Your task to perform on an android device: uninstall "Walmart Shopping & Grocery" Image 0: 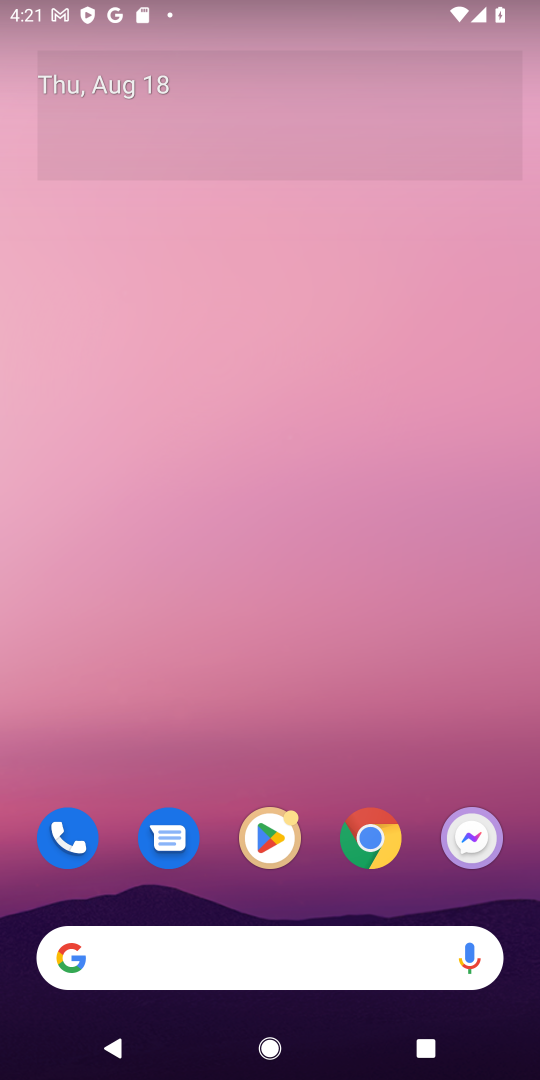
Step 0: drag from (215, 961) to (240, 69)
Your task to perform on an android device: uninstall "Walmart Shopping & Grocery" Image 1: 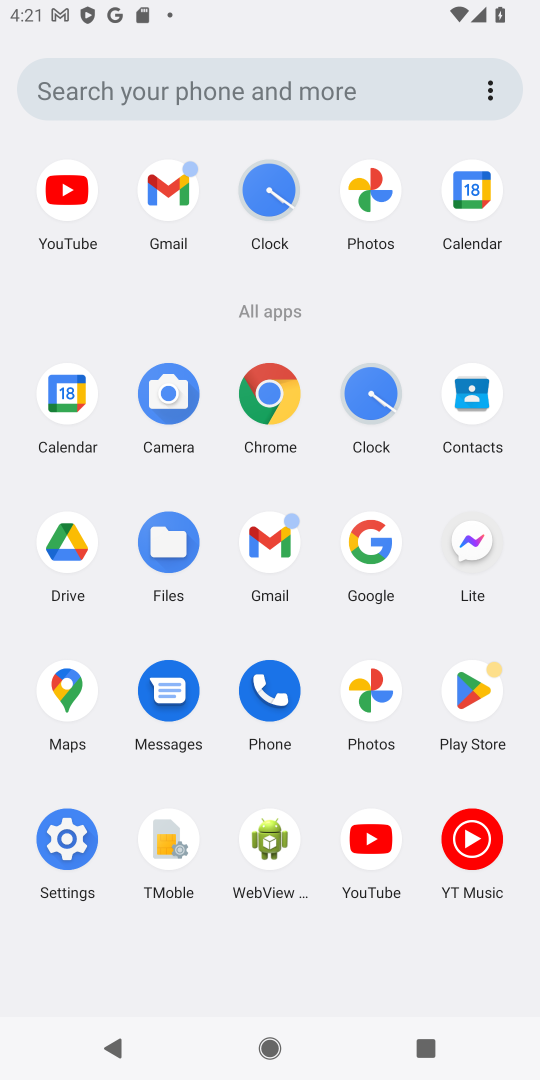
Step 1: click (483, 695)
Your task to perform on an android device: uninstall "Walmart Shopping & Grocery" Image 2: 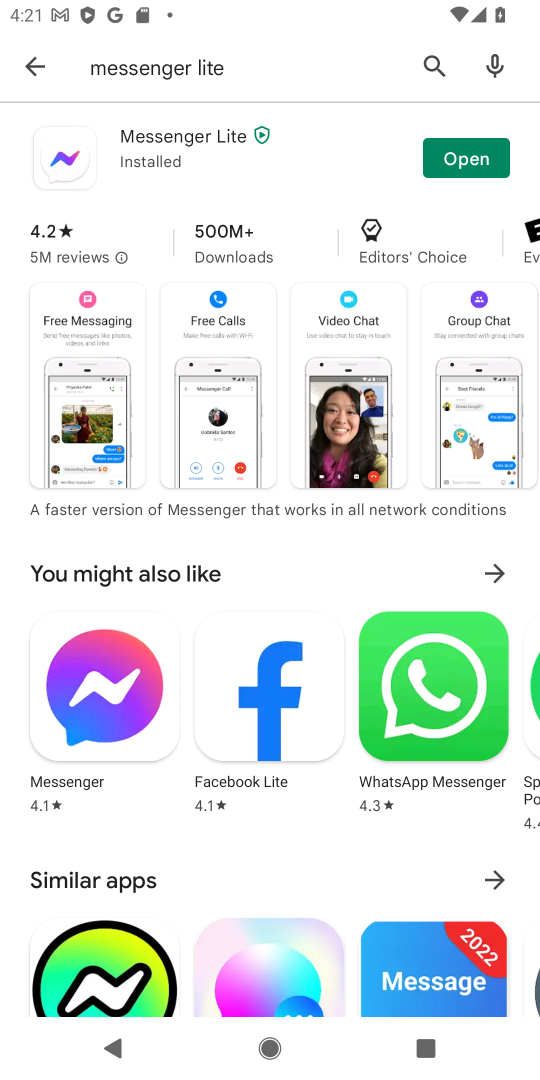
Step 2: press back button
Your task to perform on an android device: uninstall "Walmart Shopping & Grocery" Image 3: 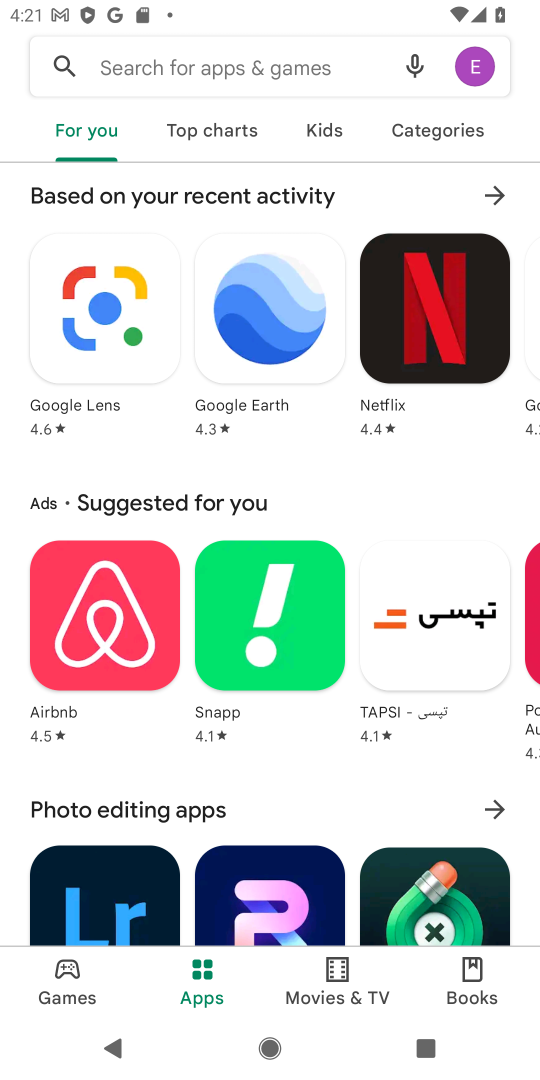
Step 3: click (329, 68)
Your task to perform on an android device: uninstall "Walmart Shopping & Grocery" Image 4: 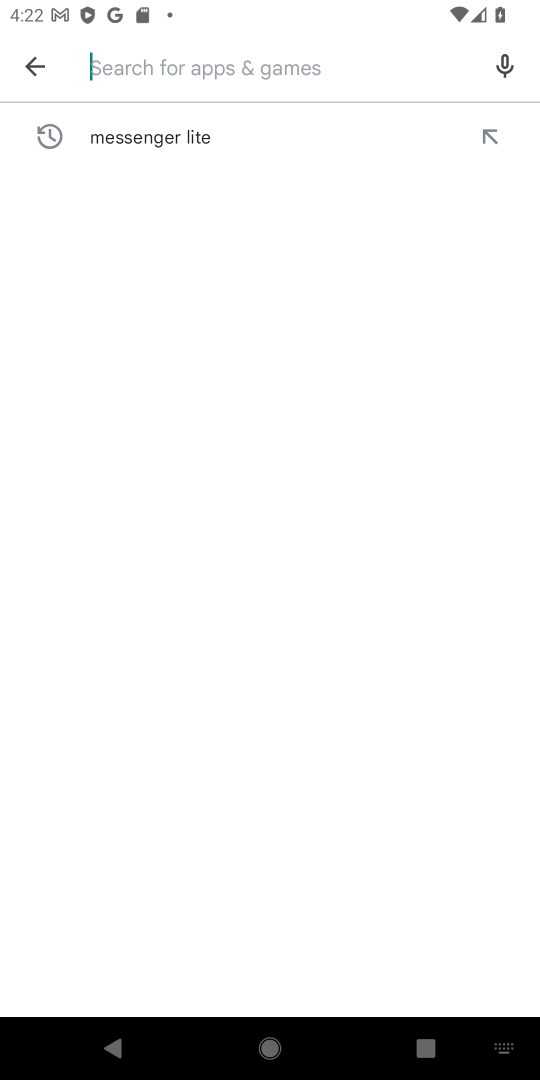
Step 4: click (205, 62)
Your task to perform on an android device: uninstall "Walmart Shopping & Grocery" Image 5: 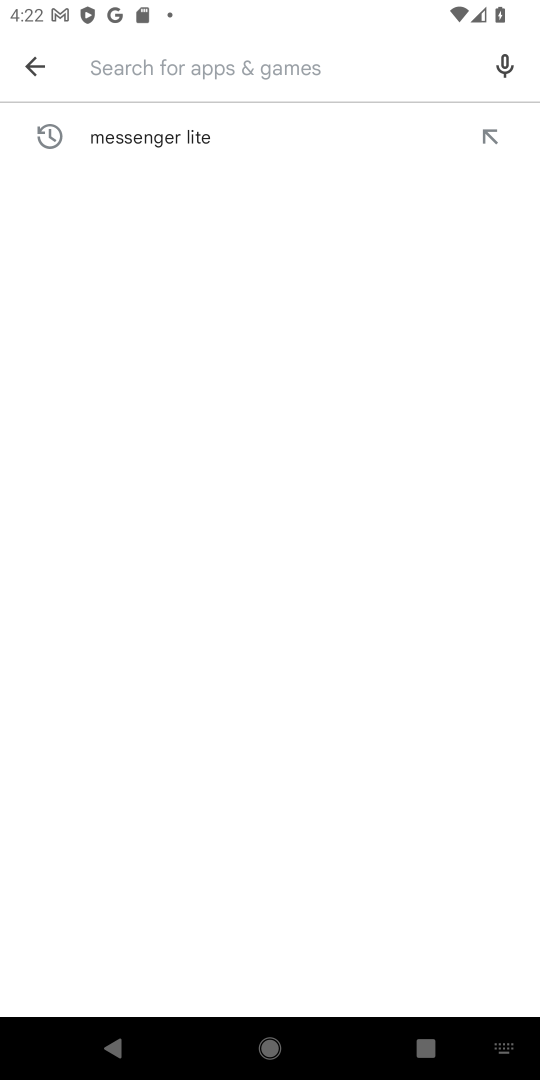
Step 5: type "Walmart Shopping & Grocery"
Your task to perform on an android device: uninstall "Walmart Shopping & Grocery" Image 6: 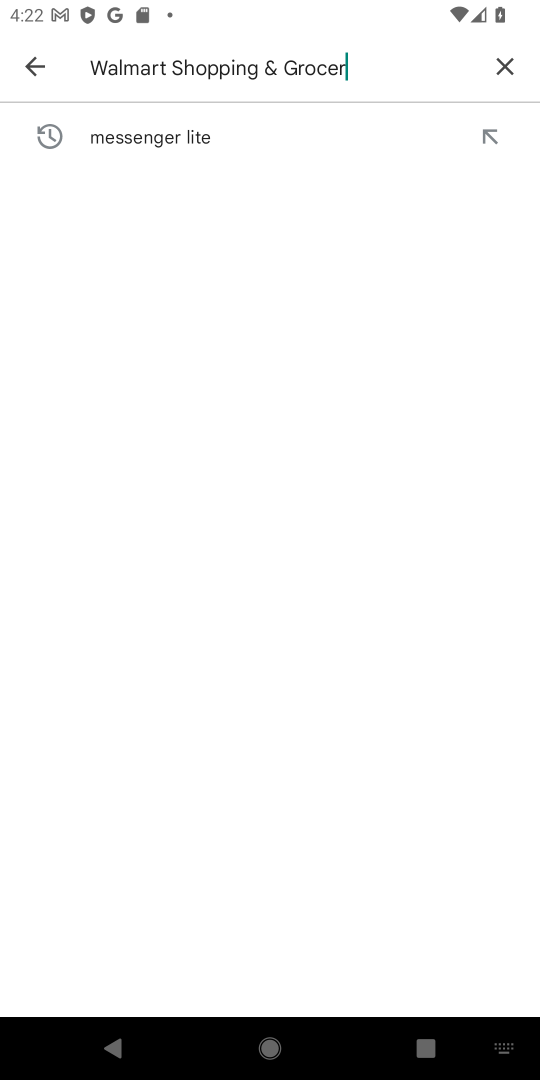
Step 6: type ""
Your task to perform on an android device: uninstall "Walmart Shopping & Grocery" Image 7: 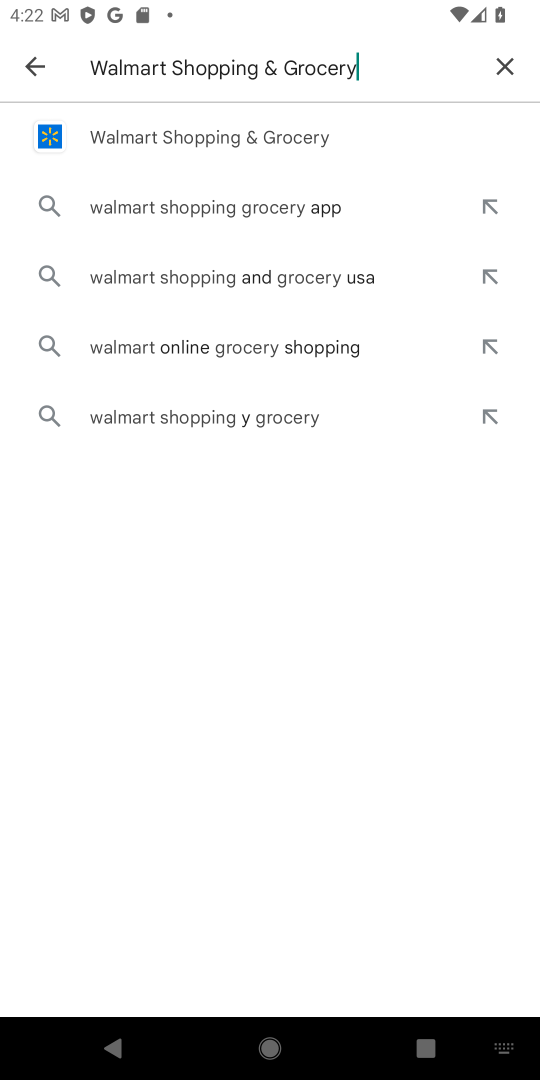
Step 7: click (212, 143)
Your task to perform on an android device: uninstall "Walmart Shopping & Grocery" Image 8: 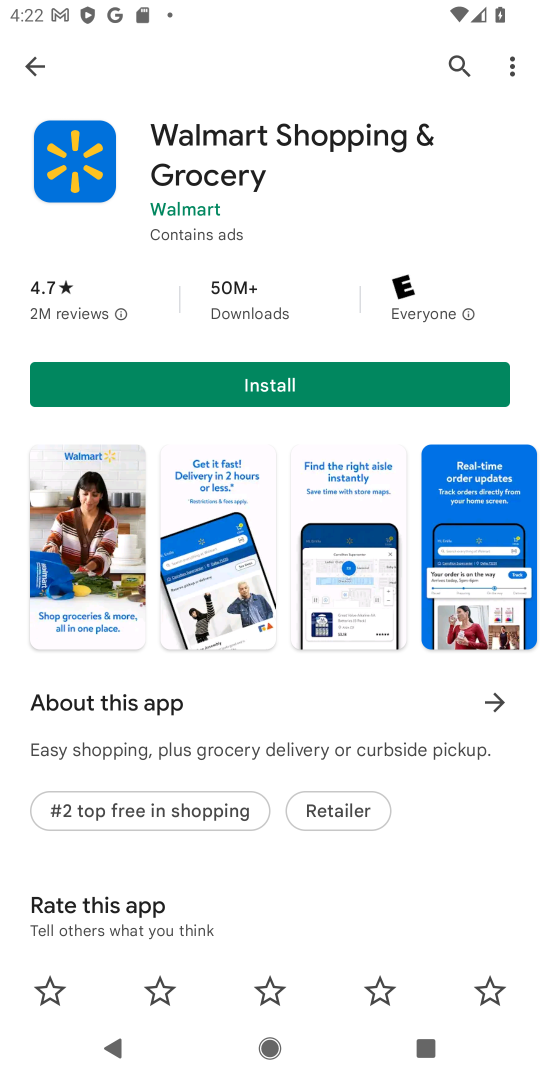
Step 8: task complete